Your task to perform on an android device: change text size in settings app Image 0: 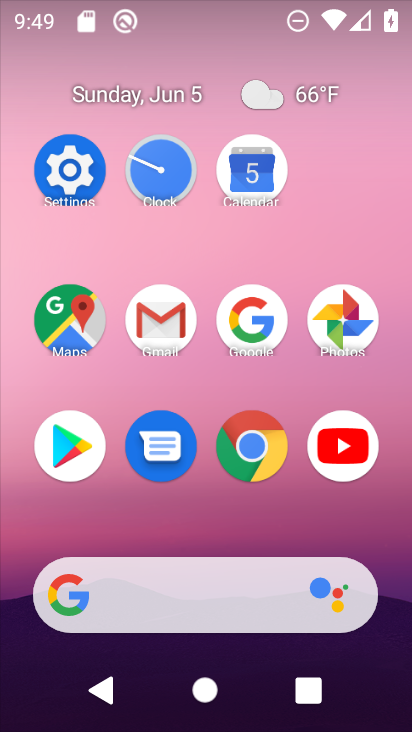
Step 0: click (86, 186)
Your task to perform on an android device: change text size in settings app Image 1: 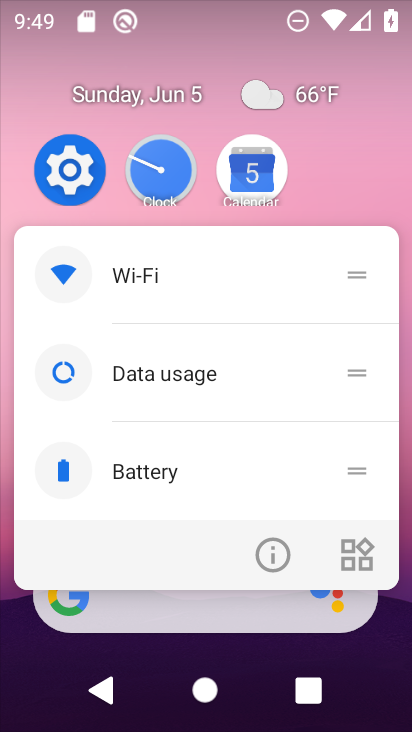
Step 1: click (66, 167)
Your task to perform on an android device: change text size in settings app Image 2: 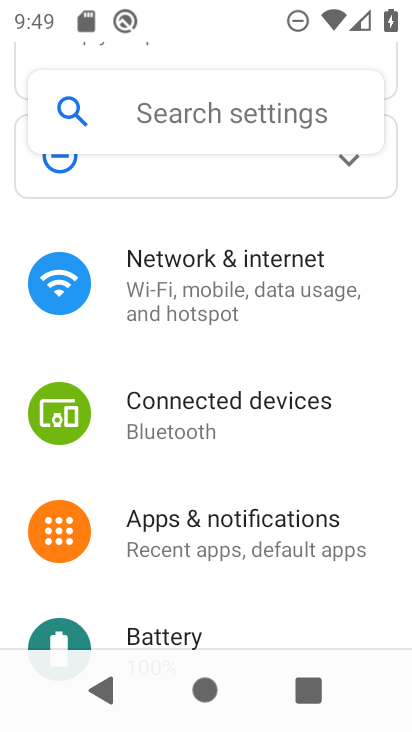
Step 2: drag from (284, 539) to (245, 204)
Your task to perform on an android device: change text size in settings app Image 3: 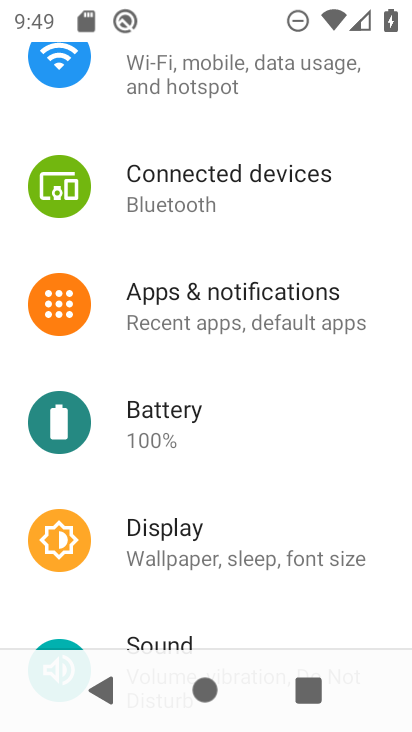
Step 3: click (266, 549)
Your task to perform on an android device: change text size in settings app Image 4: 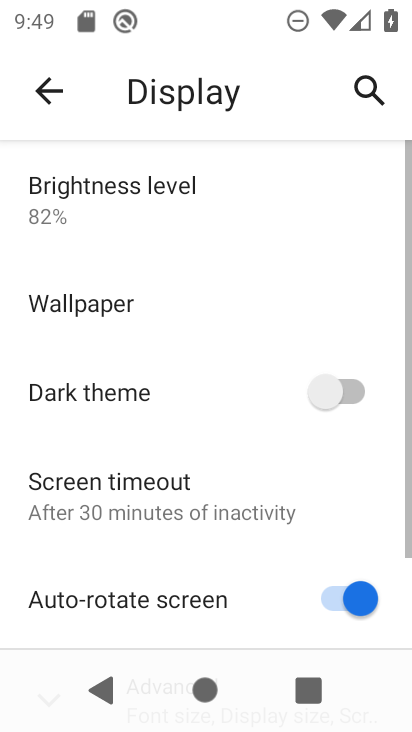
Step 4: drag from (266, 549) to (231, 172)
Your task to perform on an android device: change text size in settings app Image 5: 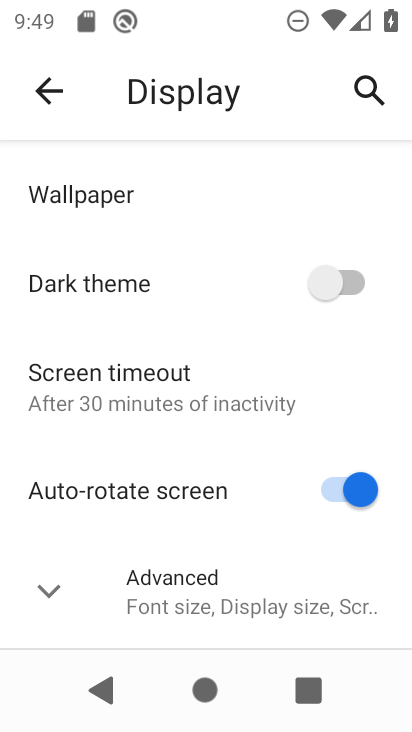
Step 5: click (202, 615)
Your task to perform on an android device: change text size in settings app Image 6: 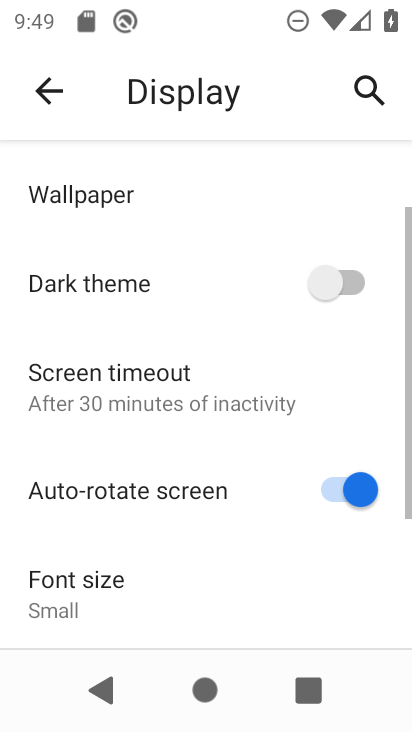
Step 6: drag from (200, 615) to (169, 228)
Your task to perform on an android device: change text size in settings app Image 7: 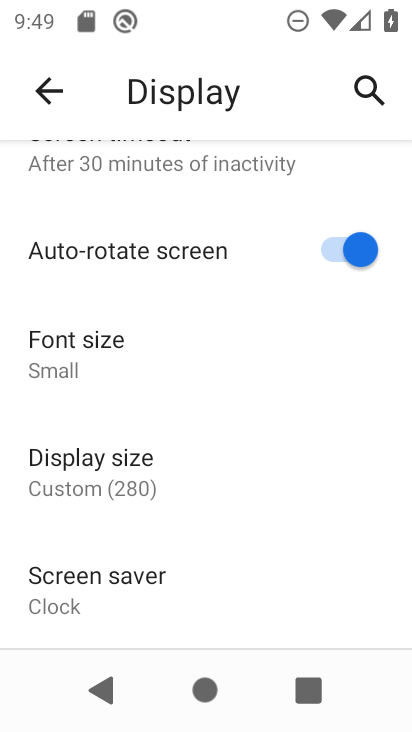
Step 7: click (147, 353)
Your task to perform on an android device: change text size in settings app Image 8: 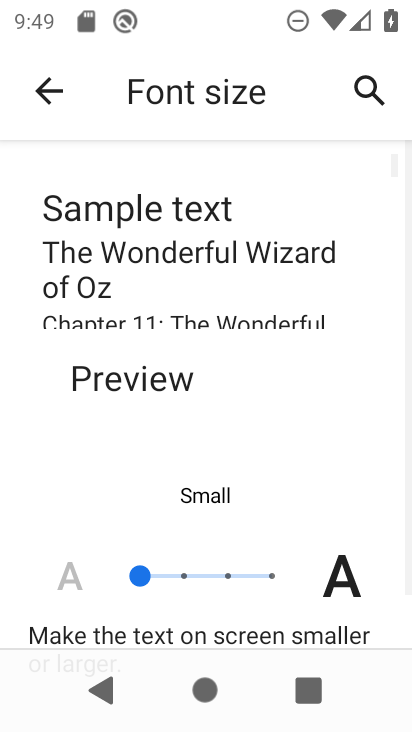
Step 8: click (177, 577)
Your task to perform on an android device: change text size in settings app Image 9: 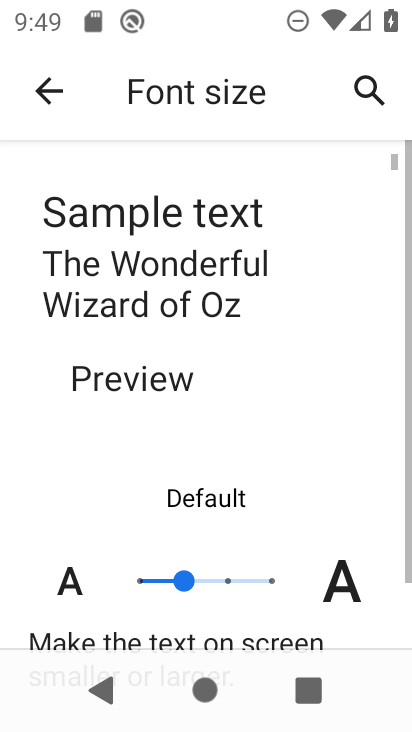
Step 9: task complete